Your task to perform on an android device: Search for seafood restaurants on Google Maps Image 0: 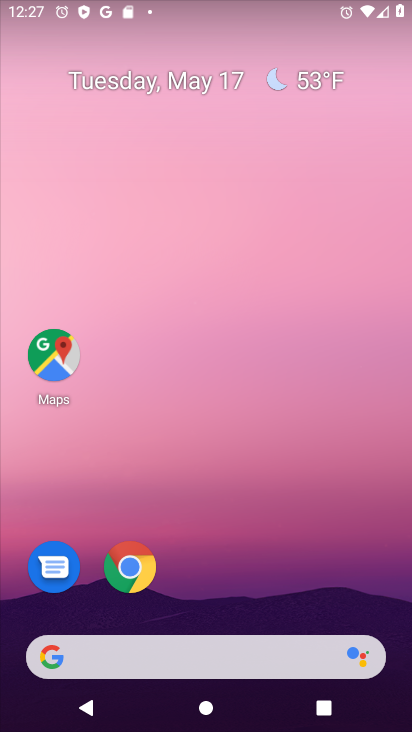
Step 0: drag from (254, 564) to (304, 78)
Your task to perform on an android device: Search for seafood restaurants on Google Maps Image 1: 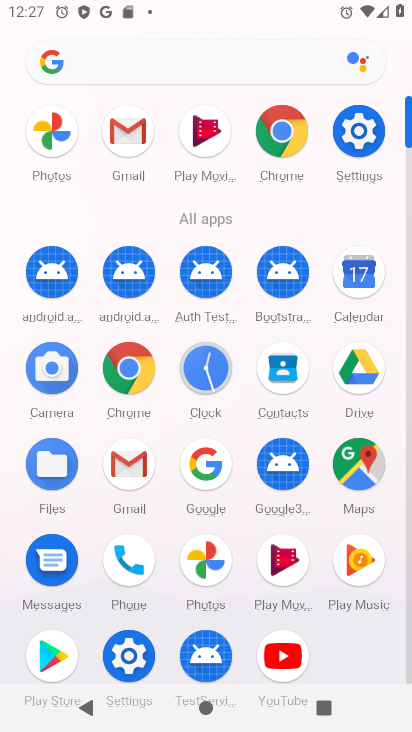
Step 1: click (374, 477)
Your task to perform on an android device: Search for seafood restaurants on Google Maps Image 2: 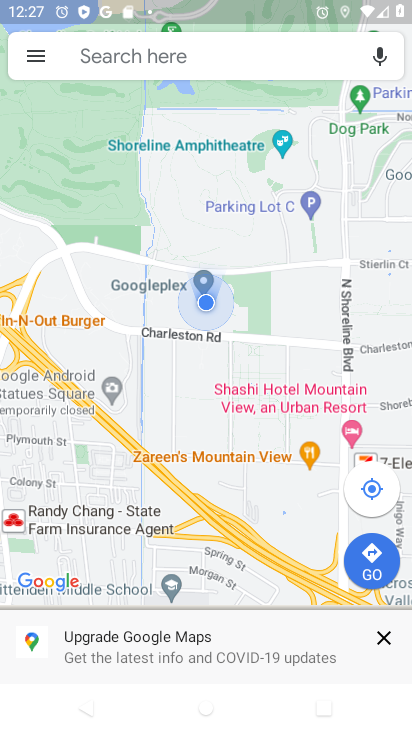
Step 2: click (239, 40)
Your task to perform on an android device: Search for seafood restaurants on Google Maps Image 3: 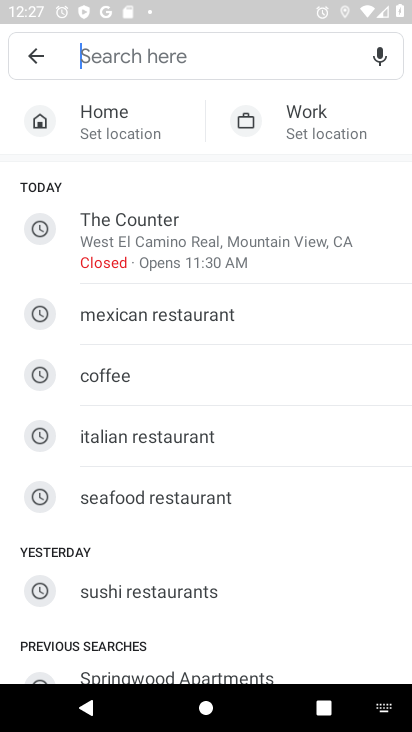
Step 3: type "seafood"
Your task to perform on an android device: Search for seafood restaurants on Google Maps Image 4: 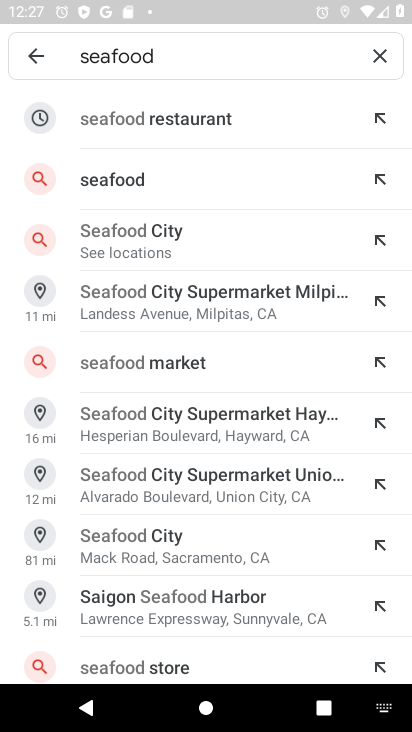
Step 4: click (211, 133)
Your task to perform on an android device: Search for seafood restaurants on Google Maps Image 5: 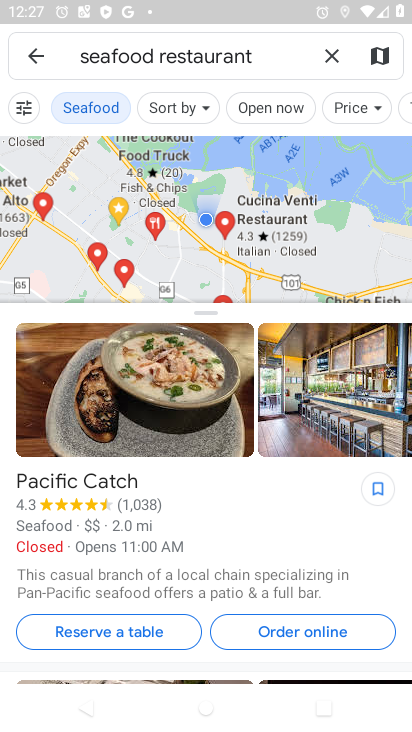
Step 5: task complete